Your task to perform on an android device: Turn on the flashlight Image 0: 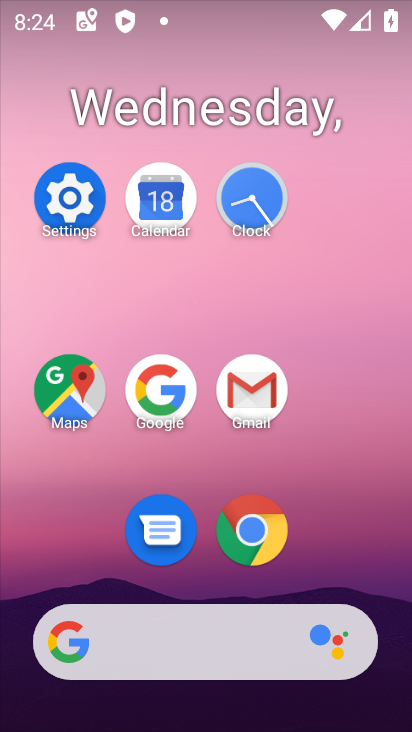
Step 0: drag from (243, 0) to (187, 349)
Your task to perform on an android device: Turn on the flashlight Image 1: 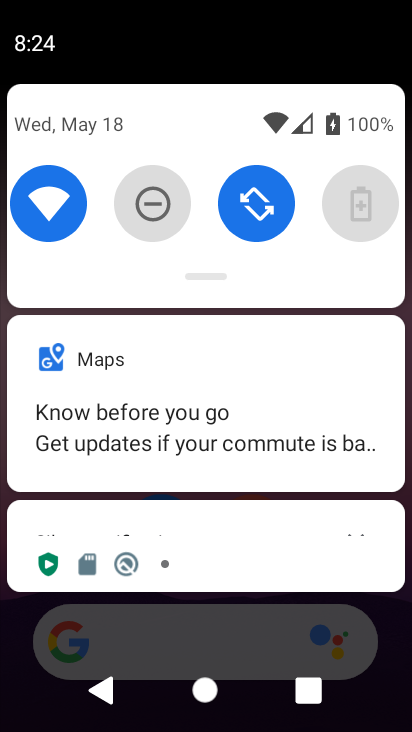
Step 1: task complete